Your task to perform on an android device: turn on bluetooth scan Image 0: 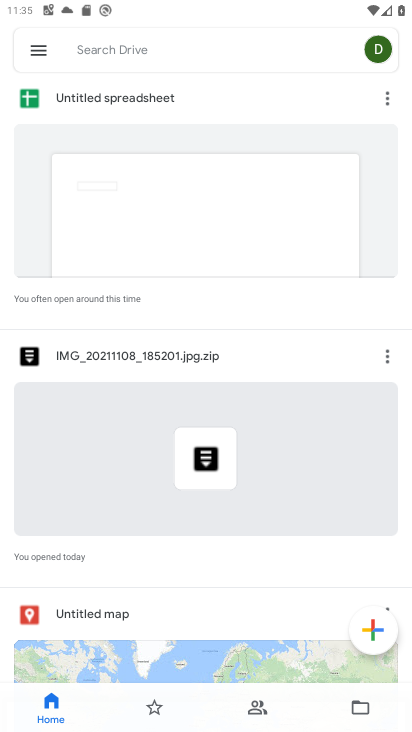
Step 0: press home button
Your task to perform on an android device: turn on bluetooth scan Image 1: 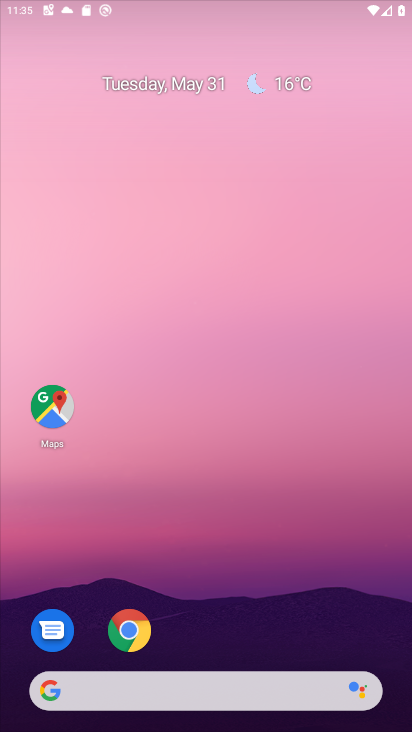
Step 1: drag from (281, 567) to (235, 111)
Your task to perform on an android device: turn on bluetooth scan Image 2: 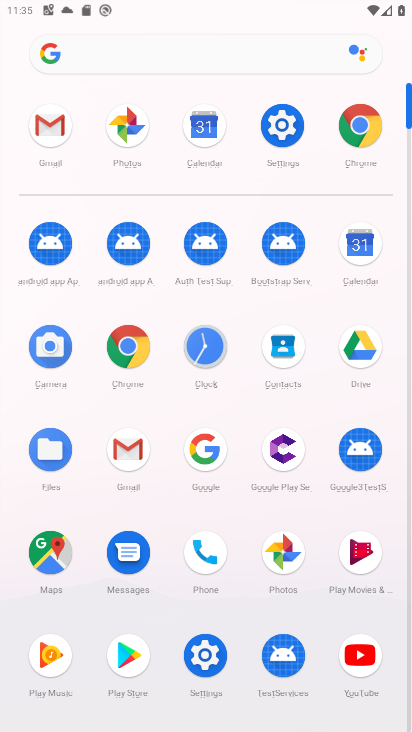
Step 2: click (281, 117)
Your task to perform on an android device: turn on bluetooth scan Image 3: 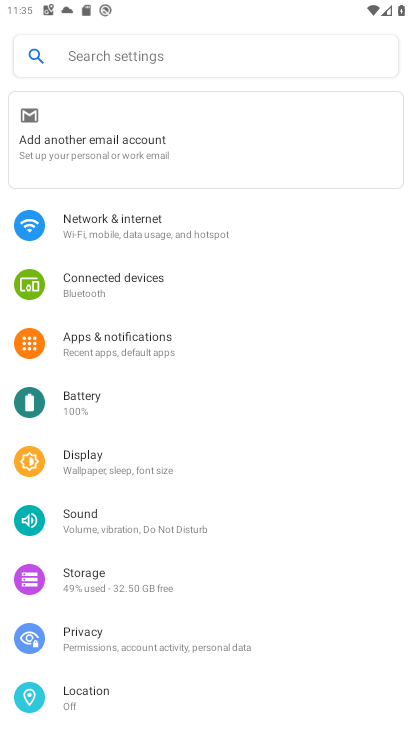
Step 3: click (89, 696)
Your task to perform on an android device: turn on bluetooth scan Image 4: 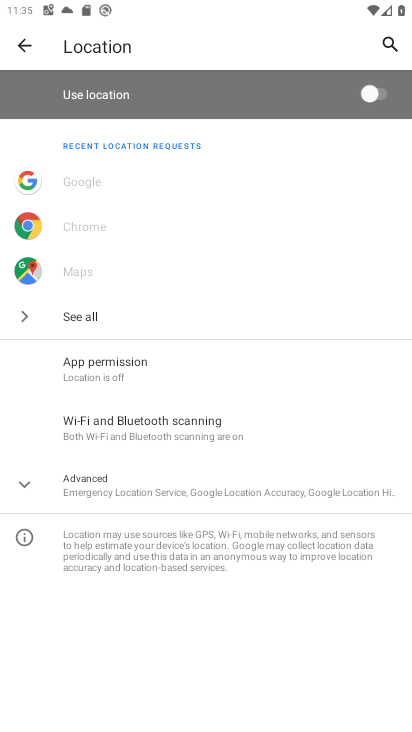
Step 4: click (136, 376)
Your task to perform on an android device: turn on bluetooth scan Image 5: 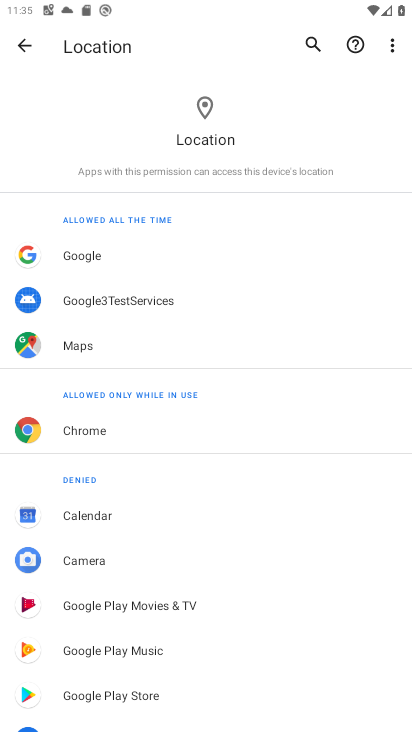
Step 5: click (13, 45)
Your task to perform on an android device: turn on bluetooth scan Image 6: 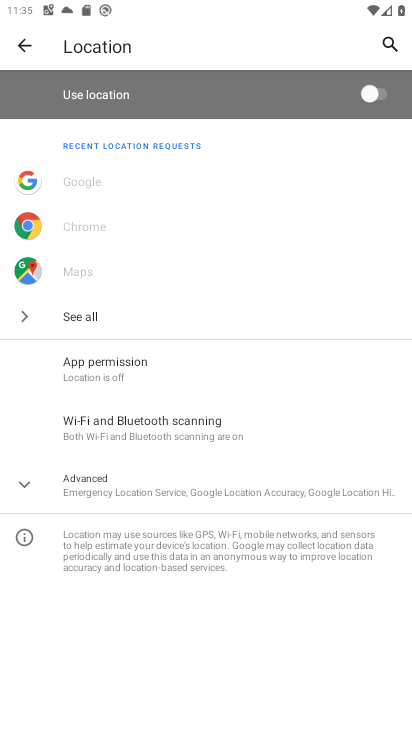
Step 6: click (118, 425)
Your task to perform on an android device: turn on bluetooth scan Image 7: 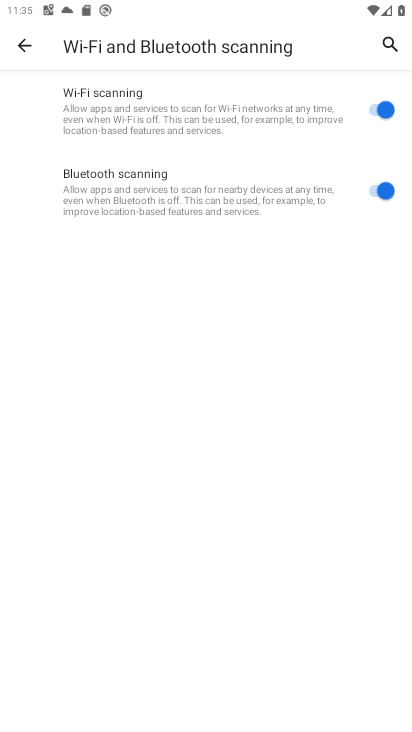
Step 7: task complete